Your task to perform on an android device: Go to settings Image 0: 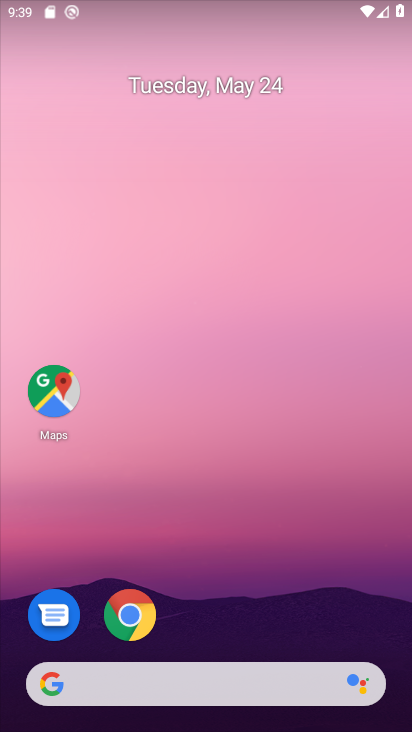
Step 0: click (375, 182)
Your task to perform on an android device: Go to settings Image 1: 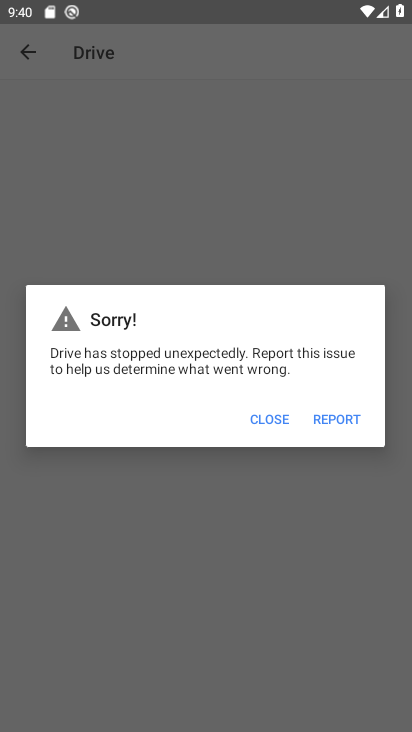
Step 1: press home button
Your task to perform on an android device: Go to settings Image 2: 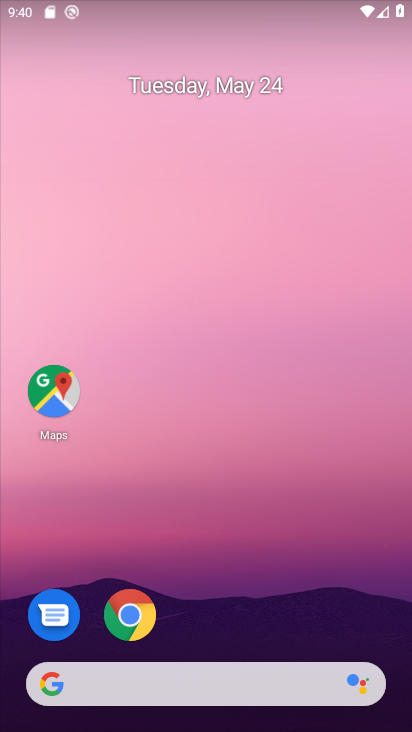
Step 2: drag from (378, 641) to (357, 310)
Your task to perform on an android device: Go to settings Image 3: 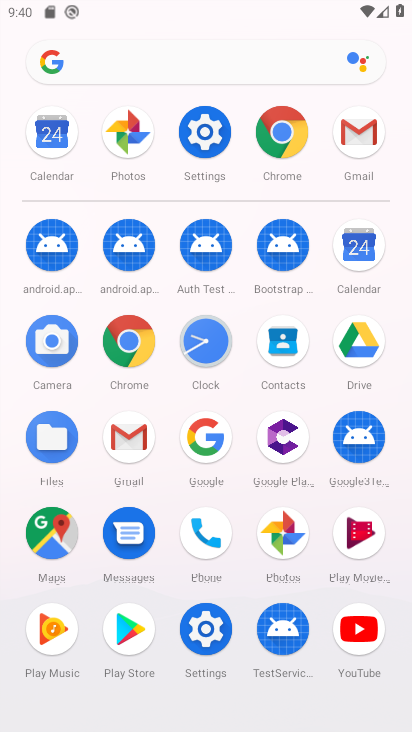
Step 3: click (211, 650)
Your task to perform on an android device: Go to settings Image 4: 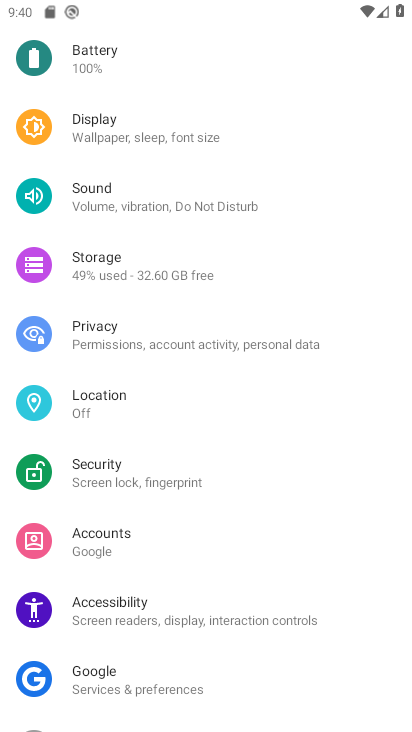
Step 4: task complete